Your task to perform on an android device: turn on priority inbox in the gmail app Image 0: 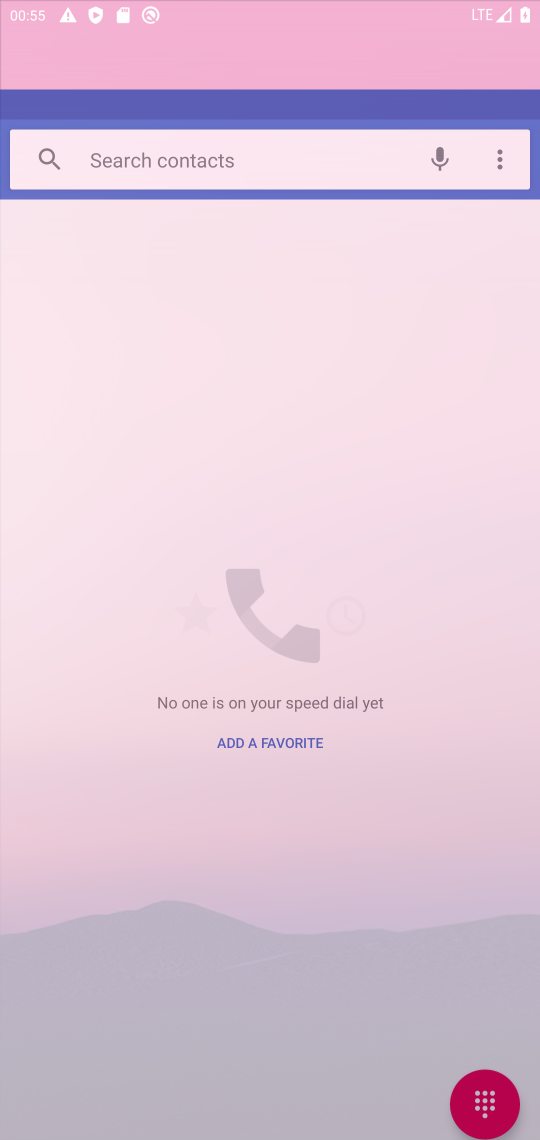
Step 0: press home button
Your task to perform on an android device: turn on priority inbox in the gmail app Image 1: 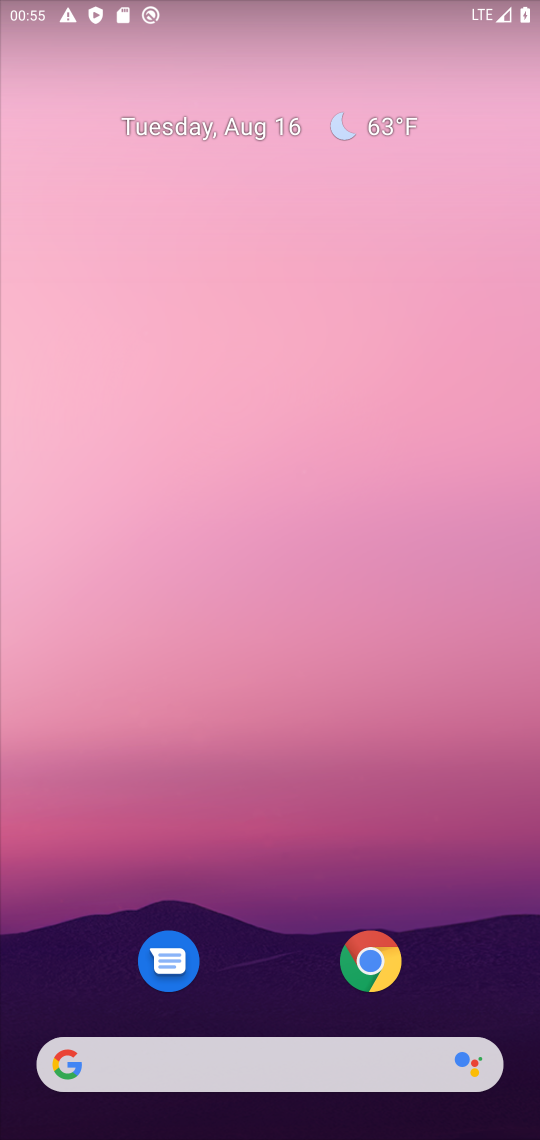
Step 1: press home button
Your task to perform on an android device: turn on priority inbox in the gmail app Image 2: 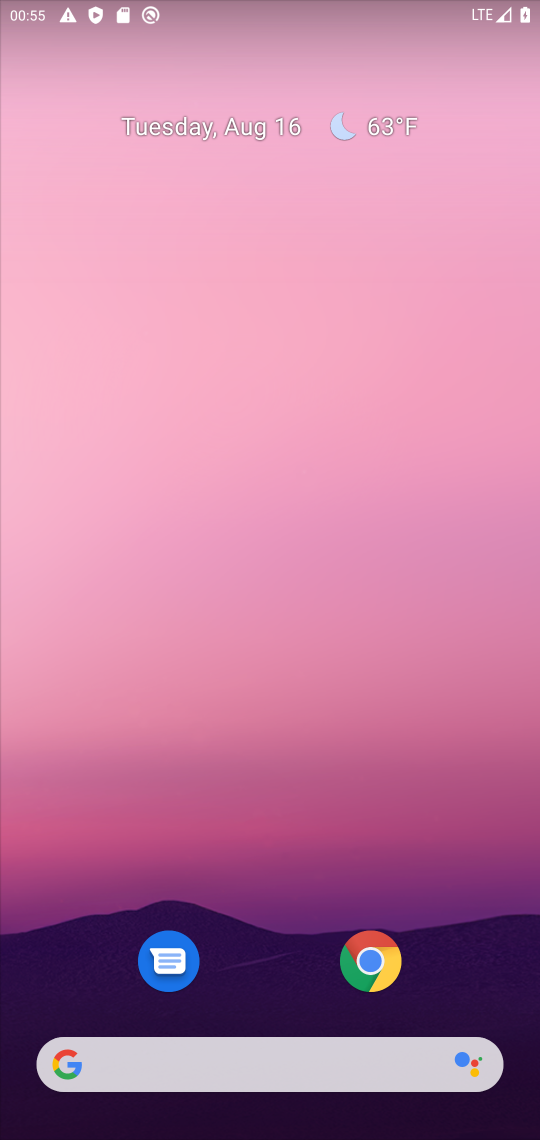
Step 2: drag from (294, 989) to (253, 7)
Your task to perform on an android device: turn on priority inbox in the gmail app Image 3: 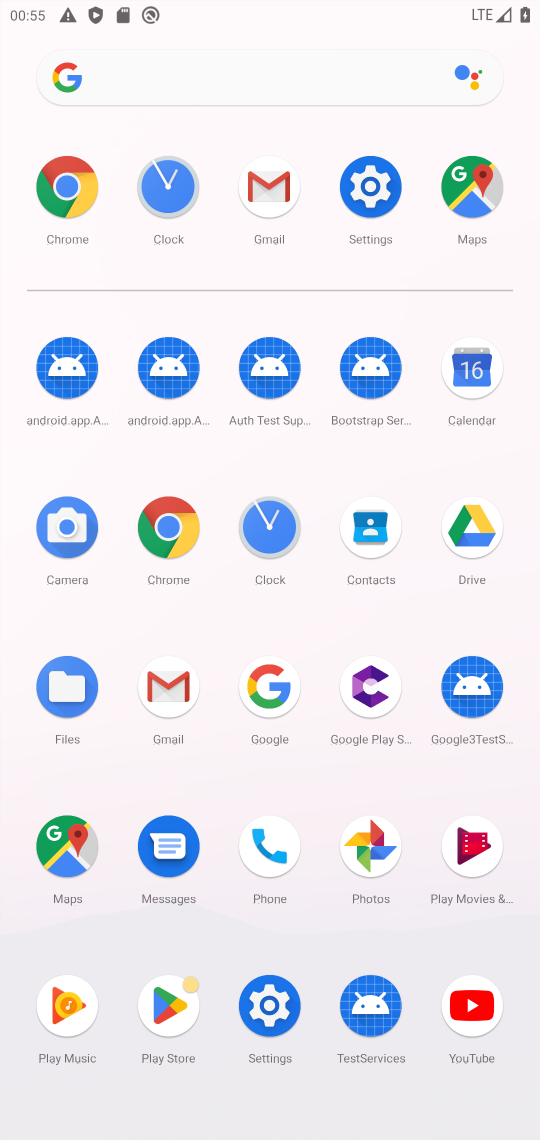
Step 3: click (280, 203)
Your task to perform on an android device: turn on priority inbox in the gmail app Image 4: 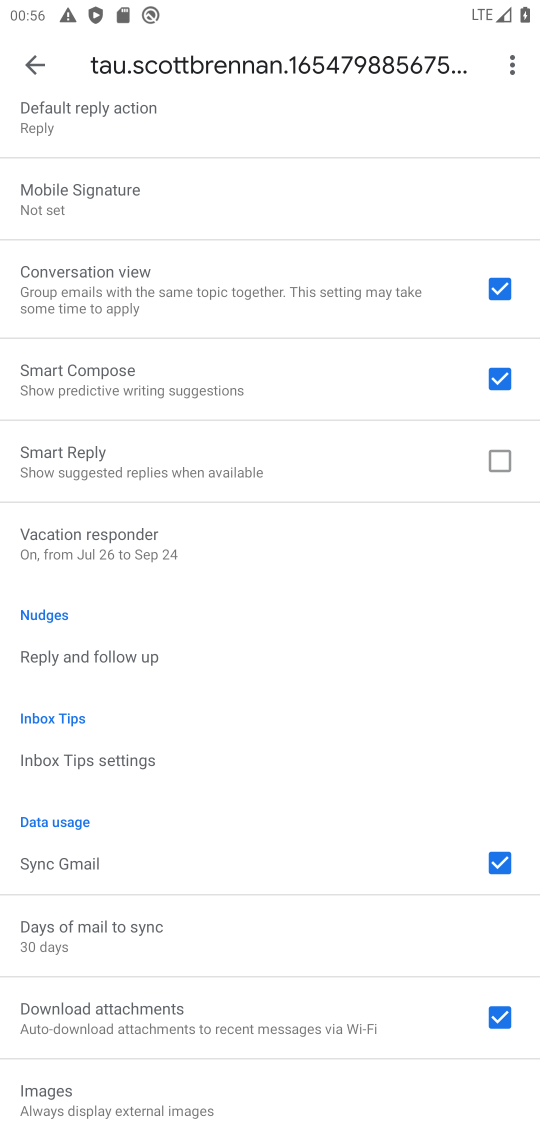
Step 4: drag from (115, 207) to (130, 1139)
Your task to perform on an android device: turn on priority inbox in the gmail app Image 5: 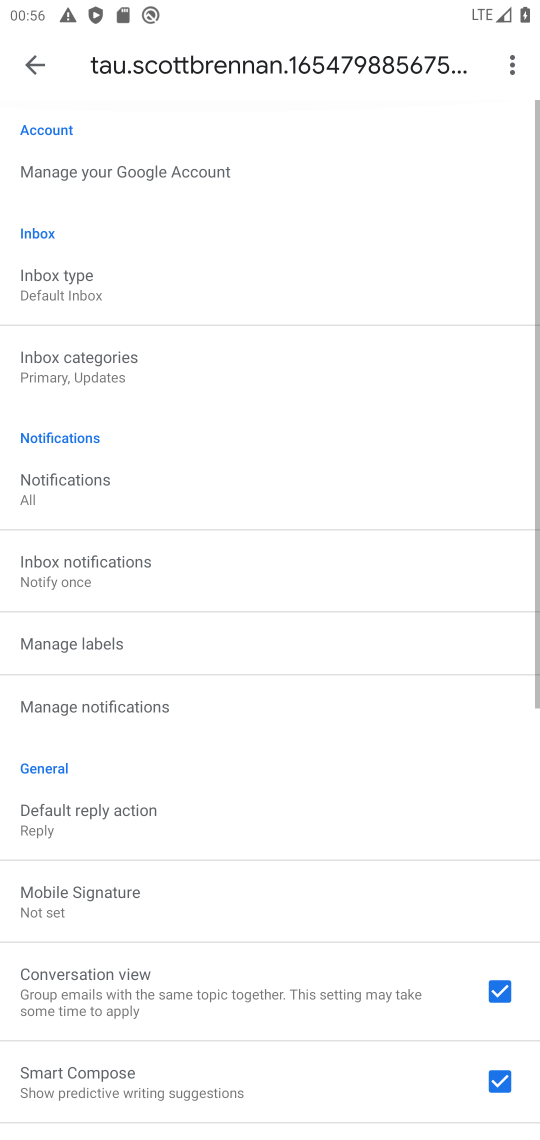
Step 5: click (81, 299)
Your task to perform on an android device: turn on priority inbox in the gmail app Image 6: 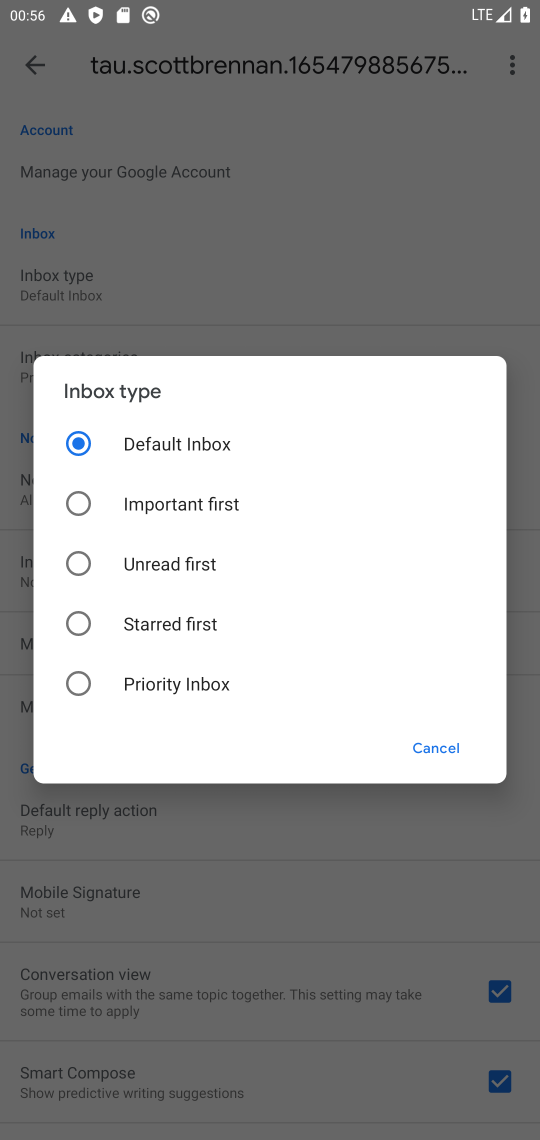
Step 6: click (121, 704)
Your task to perform on an android device: turn on priority inbox in the gmail app Image 7: 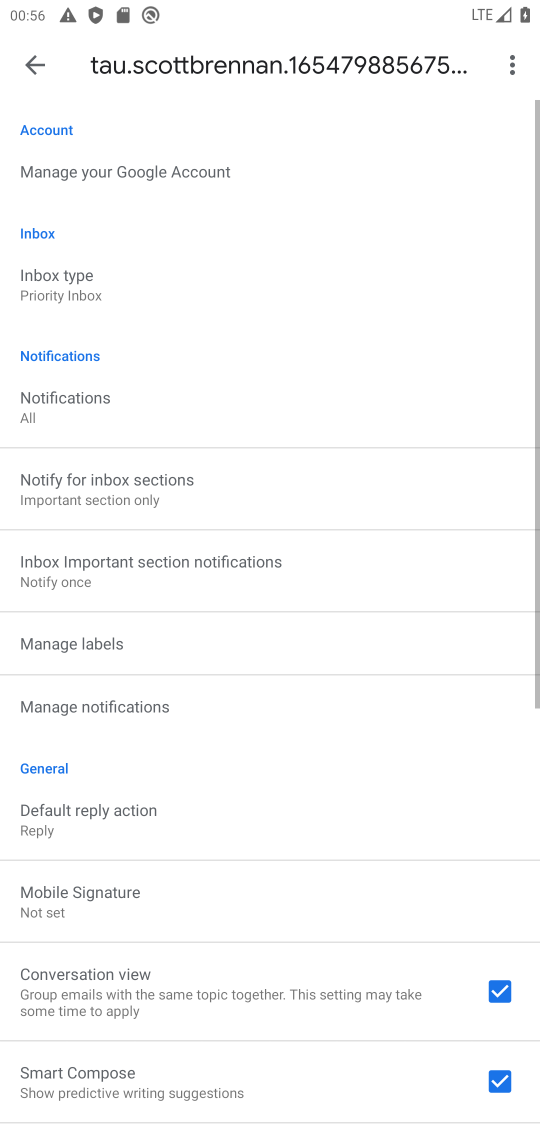
Step 7: task complete